Your task to perform on an android device: Open Youtube and go to the subscriptions tab Image 0: 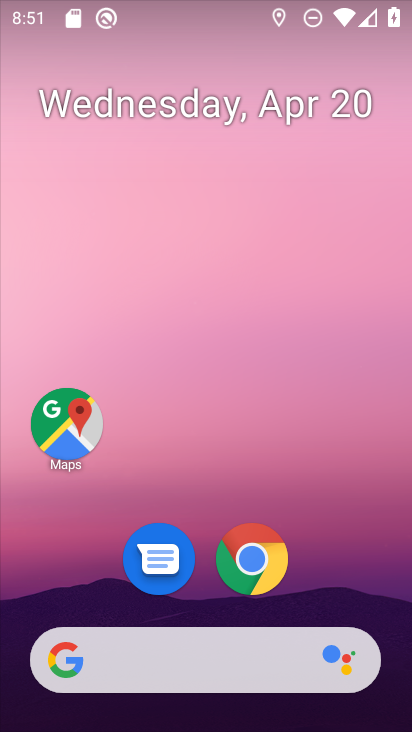
Step 0: drag from (360, 595) to (277, 161)
Your task to perform on an android device: Open Youtube and go to the subscriptions tab Image 1: 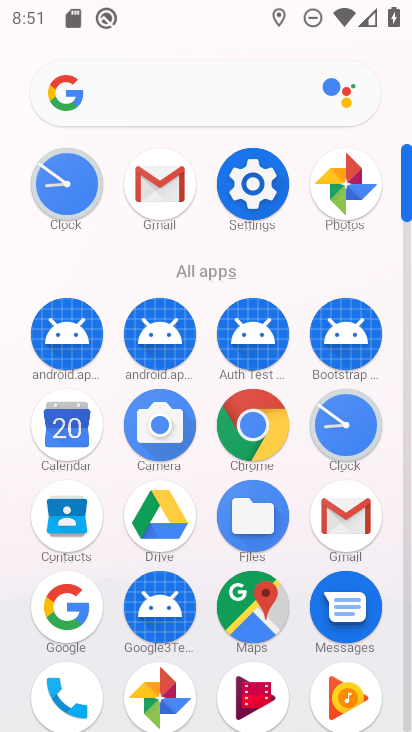
Step 1: click (408, 685)
Your task to perform on an android device: Open Youtube and go to the subscriptions tab Image 2: 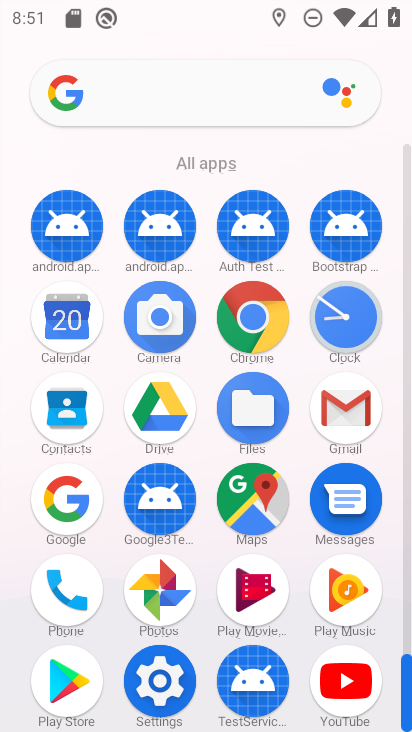
Step 2: click (340, 678)
Your task to perform on an android device: Open Youtube and go to the subscriptions tab Image 3: 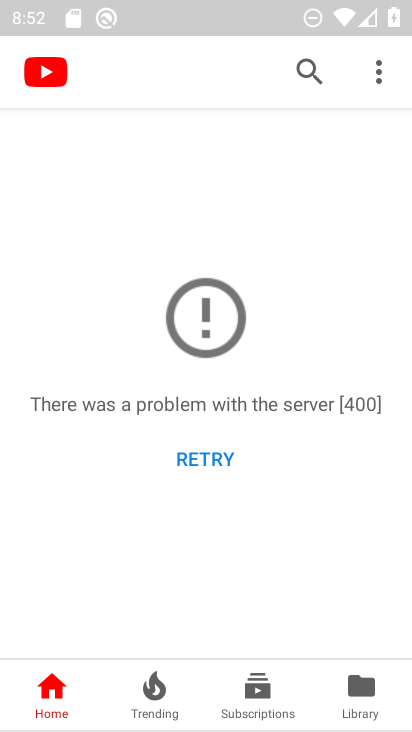
Step 3: click (272, 699)
Your task to perform on an android device: Open Youtube and go to the subscriptions tab Image 4: 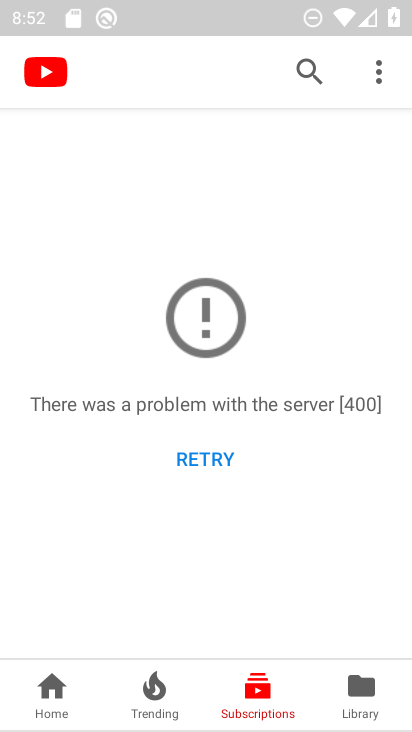
Step 4: task complete